Your task to perform on an android device: Open Maps and search for coffee Image 0: 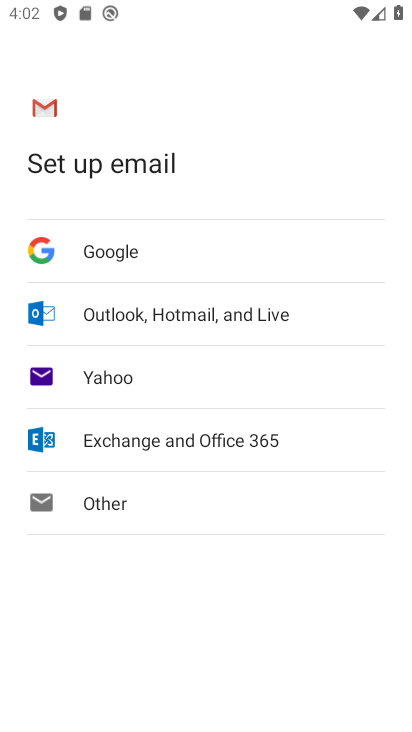
Step 0: press home button
Your task to perform on an android device: Open Maps and search for coffee Image 1: 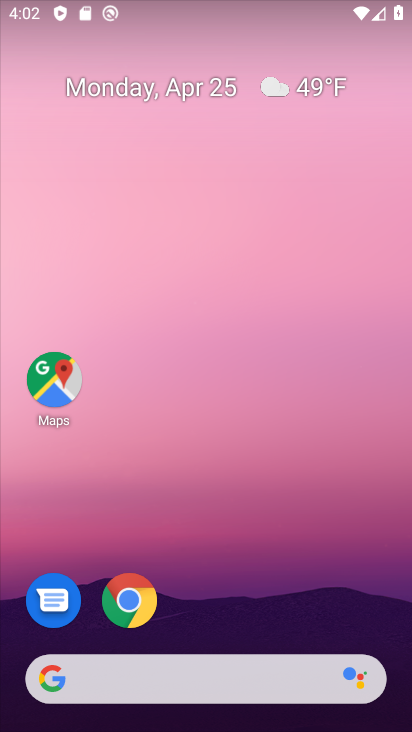
Step 1: click (58, 382)
Your task to perform on an android device: Open Maps and search for coffee Image 2: 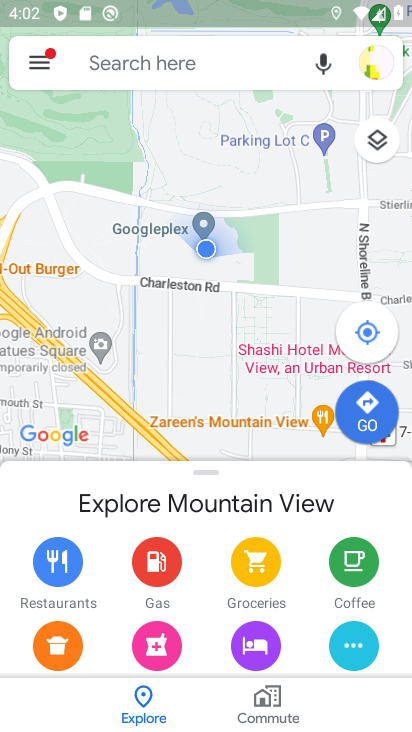
Step 2: click (188, 48)
Your task to perform on an android device: Open Maps and search for coffee Image 3: 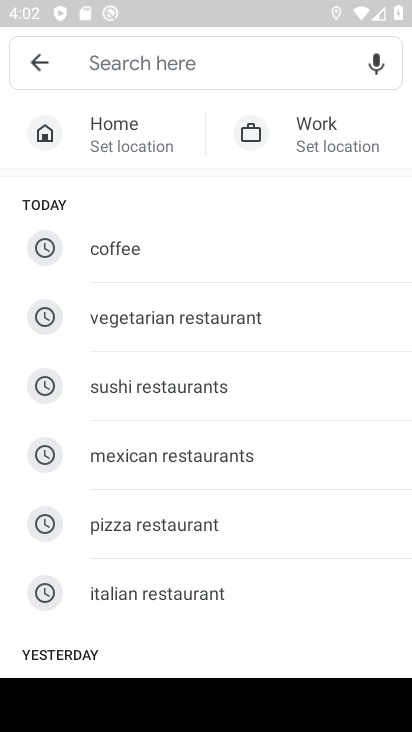
Step 3: click (151, 236)
Your task to perform on an android device: Open Maps and search for coffee Image 4: 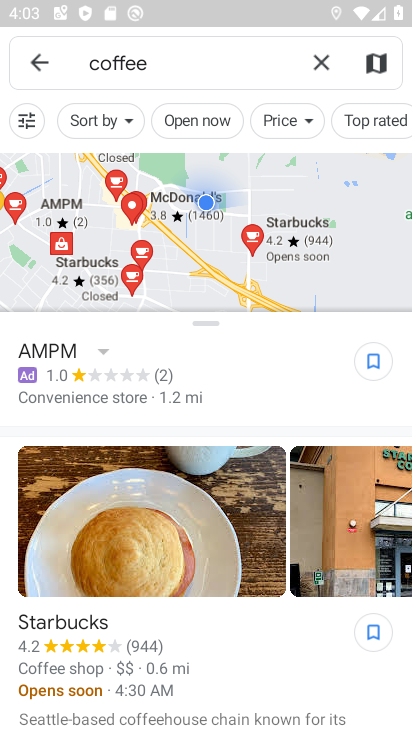
Step 4: task complete